Your task to perform on an android device: Open the Play Movies app and select the watchlist tab. Image 0: 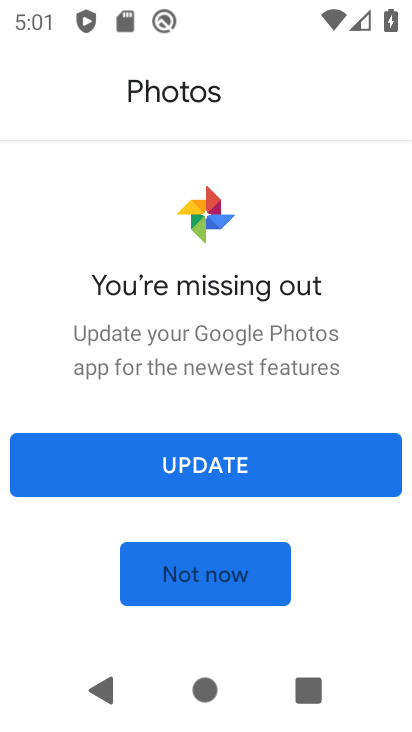
Step 0: press home button
Your task to perform on an android device: Open the Play Movies app and select the watchlist tab. Image 1: 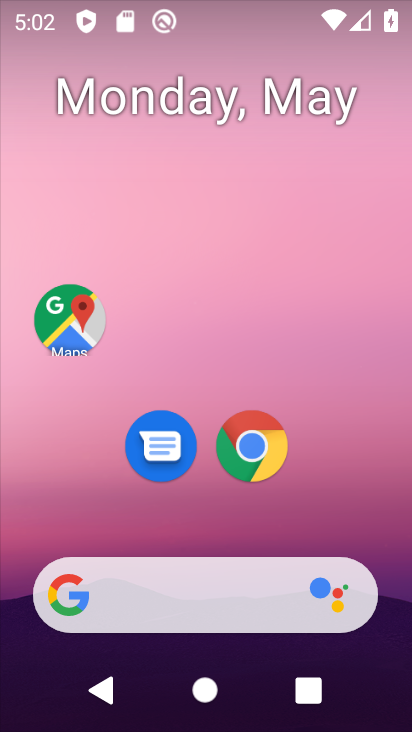
Step 1: drag from (331, 514) to (225, 103)
Your task to perform on an android device: Open the Play Movies app and select the watchlist tab. Image 2: 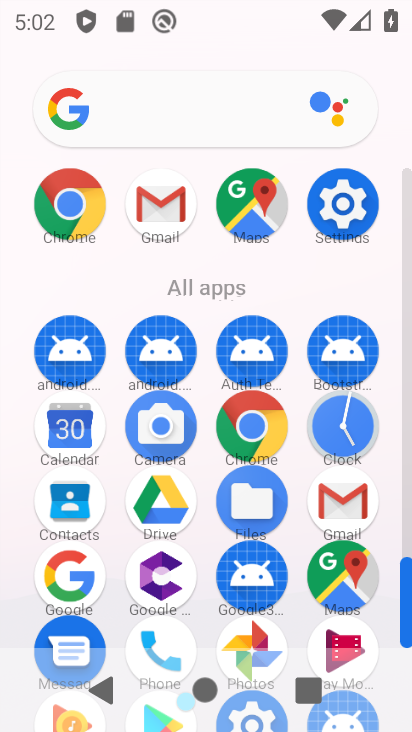
Step 2: drag from (200, 621) to (178, 206)
Your task to perform on an android device: Open the Play Movies app and select the watchlist tab. Image 3: 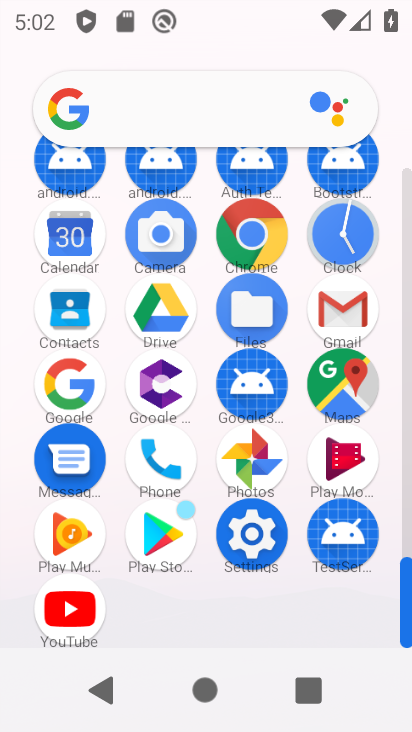
Step 3: click (326, 447)
Your task to perform on an android device: Open the Play Movies app and select the watchlist tab. Image 4: 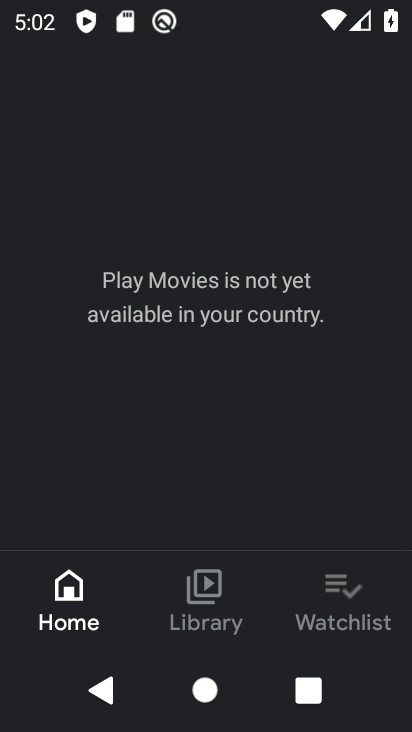
Step 4: click (329, 606)
Your task to perform on an android device: Open the Play Movies app and select the watchlist tab. Image 5: 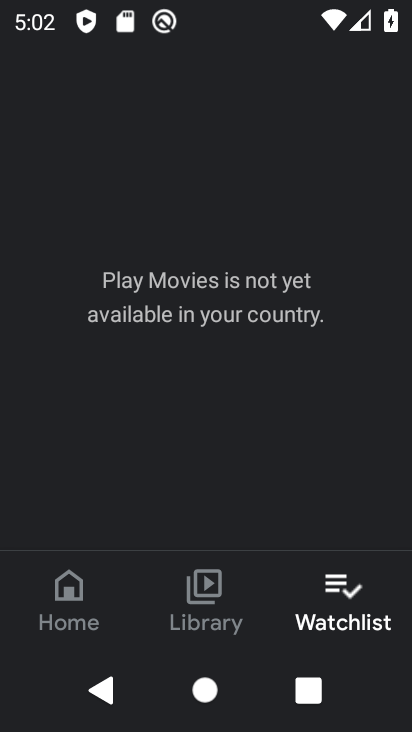
Step 5: task complete